Your task to perform on an android device: open app "DoorDash - Food Delivery" (install if not already installed) Image 0: 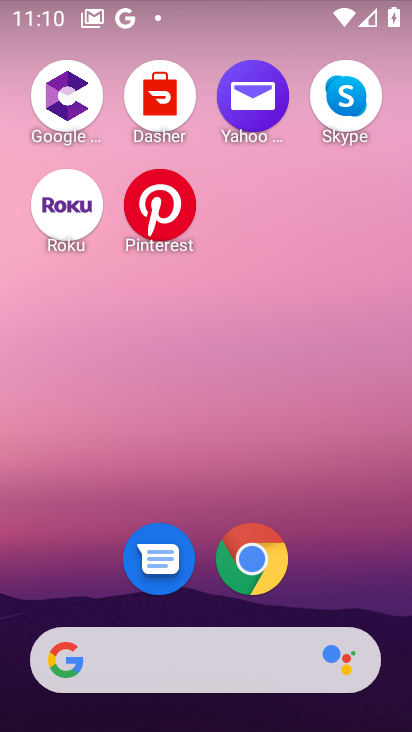
Step 0: drag from (175, 377) to (360, 369)
Your task to perform on an android device: open app "DoorDash - Food Delivery" (install if not already installed) Image 1: 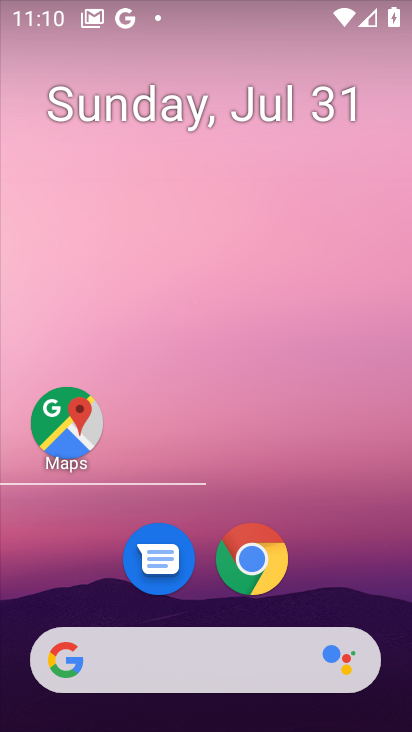
Step 1: drag from (371, 380) to (37, 384)
Your task to perform on an android device: open app "DoorDash - Food Delivery" (install if not already installed) Image 2: 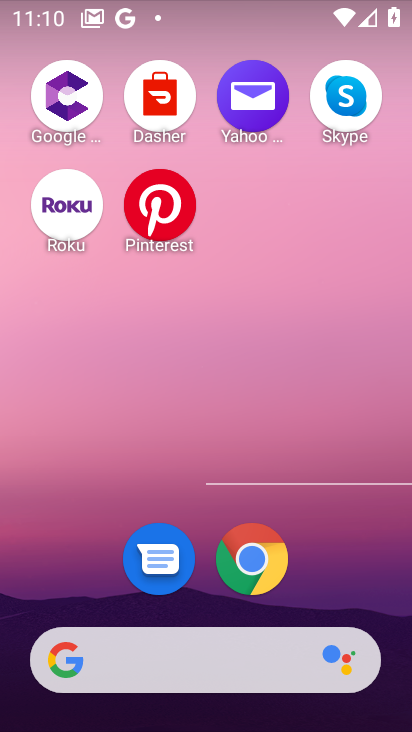
Step 2: drag from (335, 392) to (22, 449)
Your task to perform on an android device: open app "DoorDash - Food Delivery" (install if not already installed) Image 3: 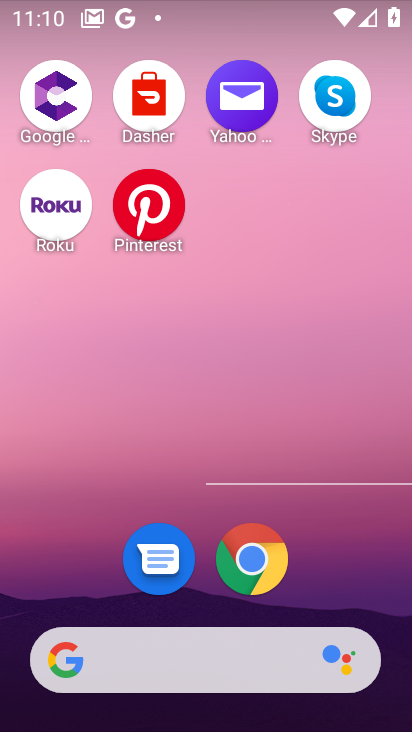
Step 3: drag from (194, 538) to (233, 3)
Your task to perform on an android device: open app "DoorDash - Food Delivery" (install if not already installed) Image 4: 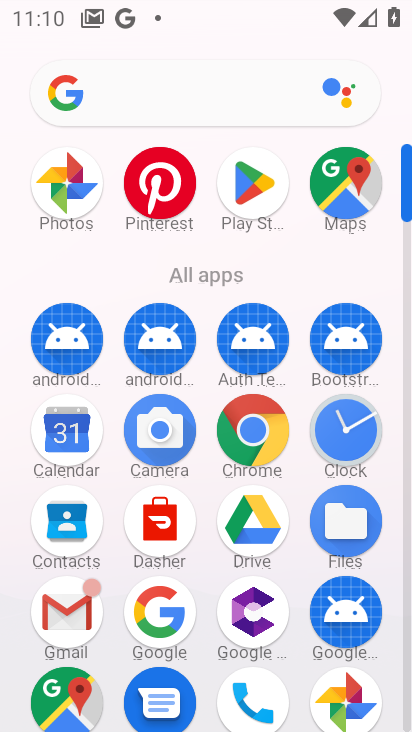
Step 4: click (262, 175)
Your task to perform on an android device: open app "DoorDash - Food Delivery" (install if not already installed) Image 5: 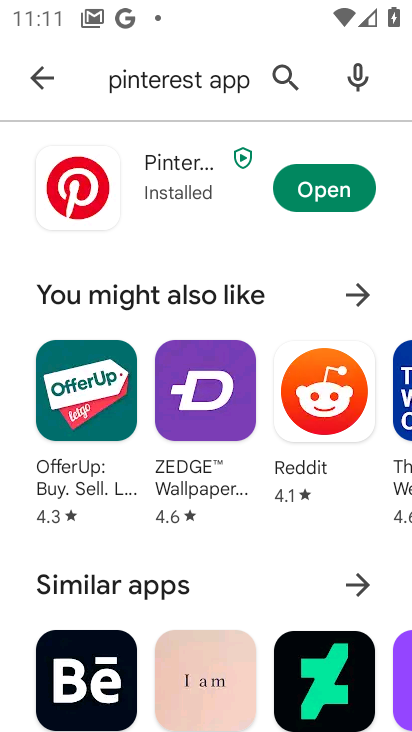
Step 5: click (272, 73)
Your task to perform on an android device: open app "DoorDash - Food Delivery" (install if not already installed) Image 6: 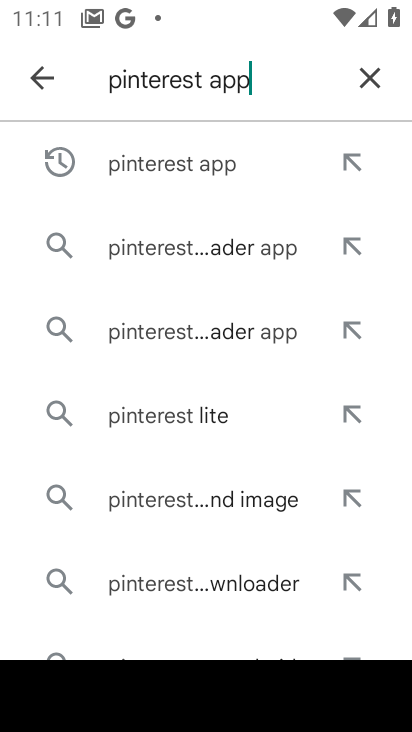
Step 6: click (371, 68)
Your task to perform on an android device: open app "DoorDash - Food Delivery" (install if not already installed) Image 7: 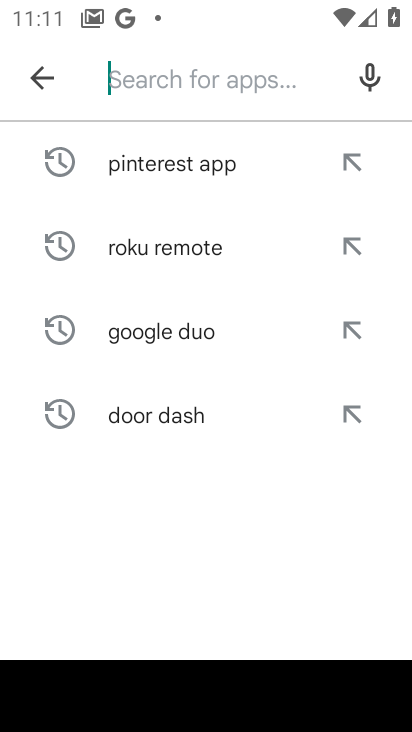
Step 7: click (138, 422)
Your task to perform on an android device: open app "DoorDash - Food Delivery" (install if not already installed) Image 8: 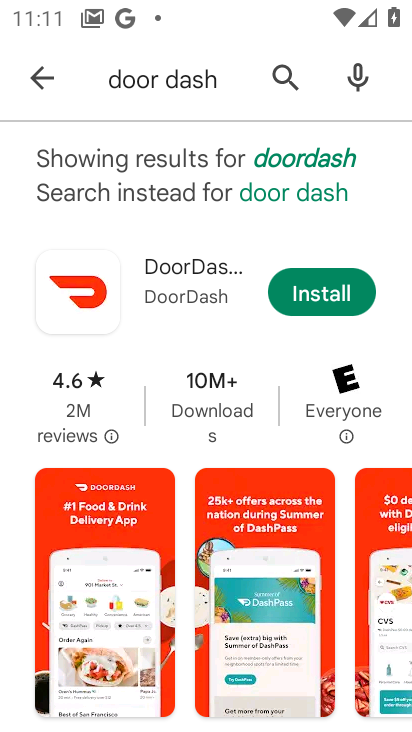
Step 8: click (296, 285)
Your task to perform on an android device: open app "DoorDash - Food Delivery" (install if not already installed) Image 9: 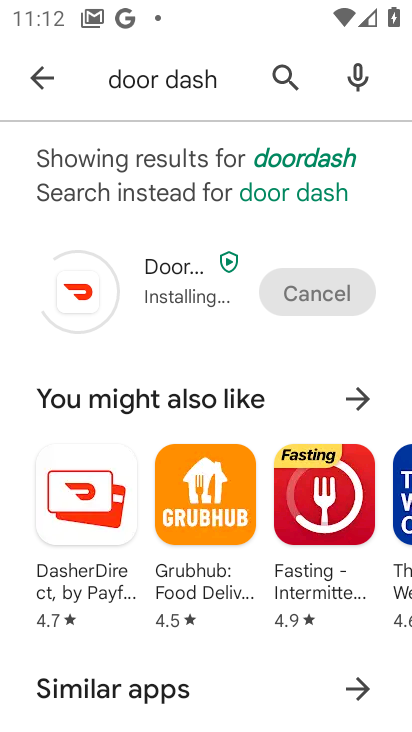
Step 9: drag from (180, 594) to (254, 723)
Your task to perform on an android device: open app "DoorDash - Food Delivery" (install if not already installed) Image 10: 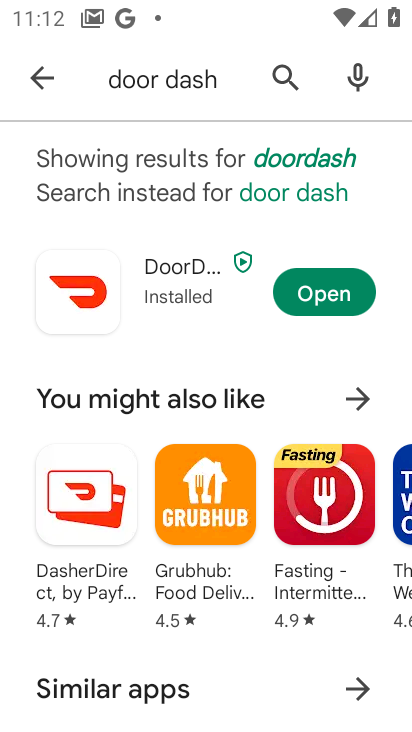
Step 10: click (302, 291)
Your task to perform on an android device: open app "DoorDash - Food Delivery" (install if not already installed) Image 11: 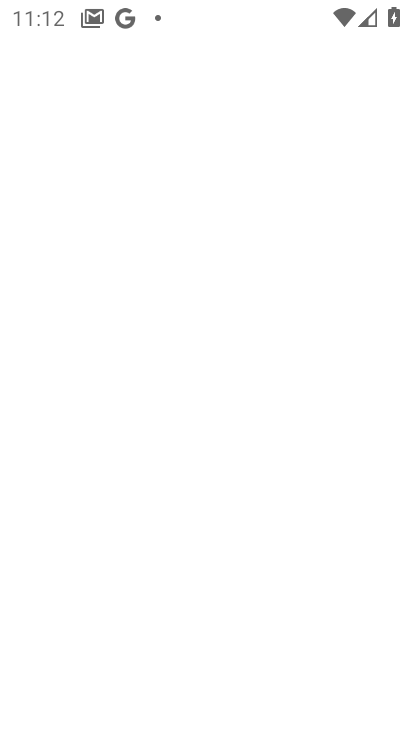
Step 11: task complete